Your task to perform on an android device: Open the map Image 0: 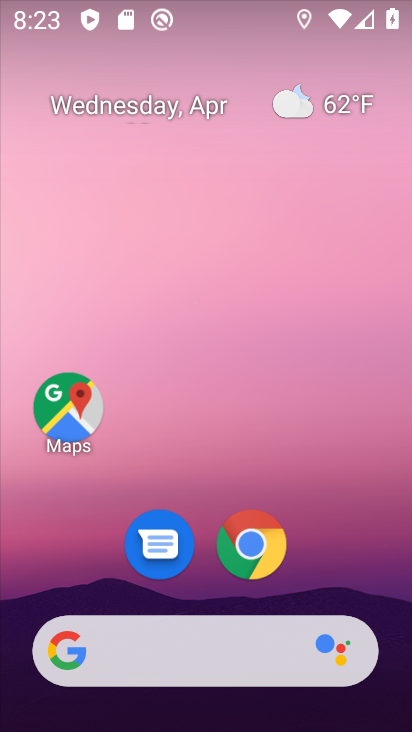
Step 0: click (56, 422)
Your task to perform on an android device: Open the map Image 1: 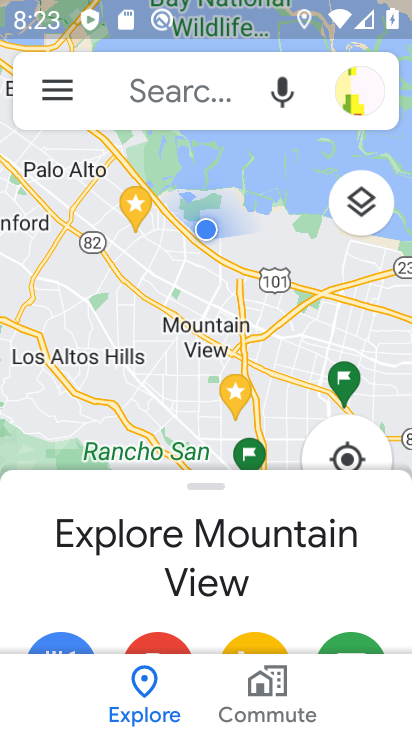
Step 1: task complete